Your task to perform on an android device: turn pop-ups on in chrome Image 0: 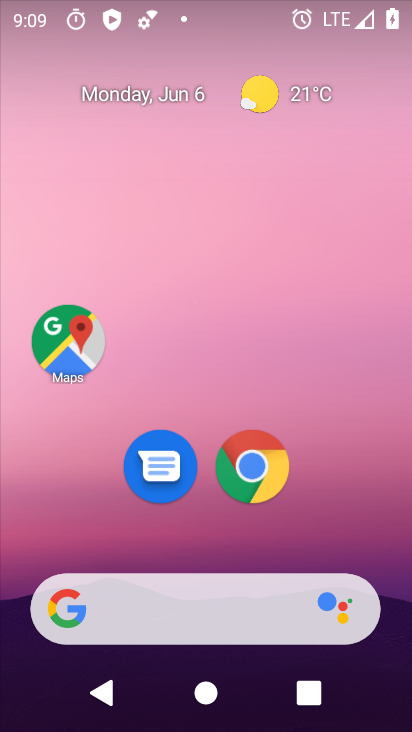
Step 0: click (277, 465)
Your task to perform on an android device: turn pop-ups on in chrome Image 1: 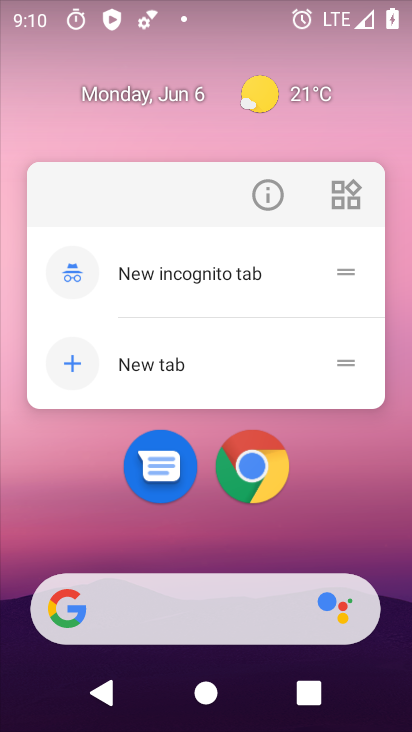
Step 1: click (267, 459)
Your task to perform on an android device: turn pop-ups on in chrome Image 2: 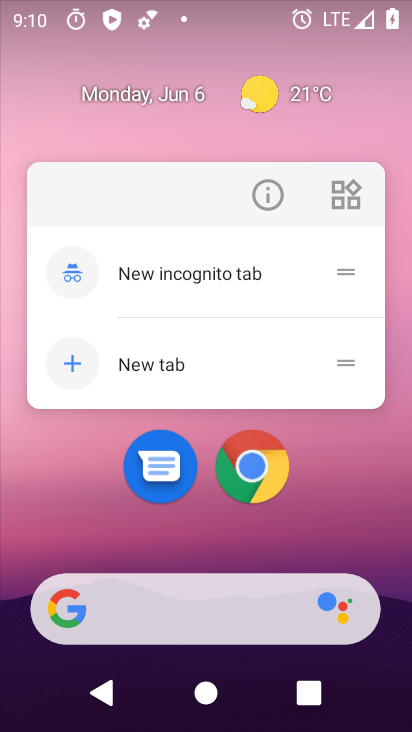
Step 2: click (255, 178)
Your task to perform on an android device: turn pop-ups on in chrome Image 3: 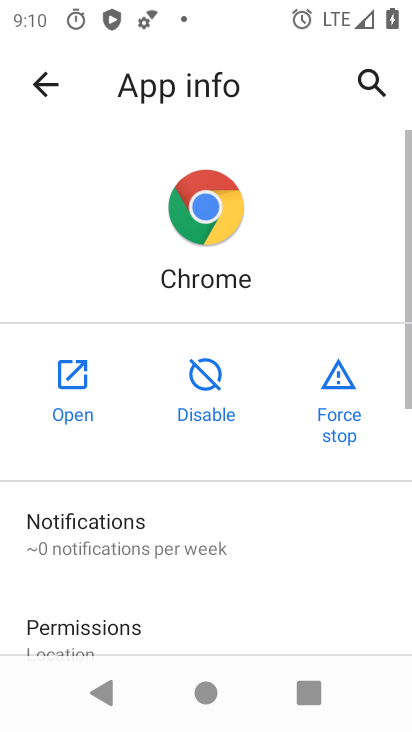
Step 3: click (64, 384)
Your task to perform on an android device: turn pop-ups on in chrome Image 4: 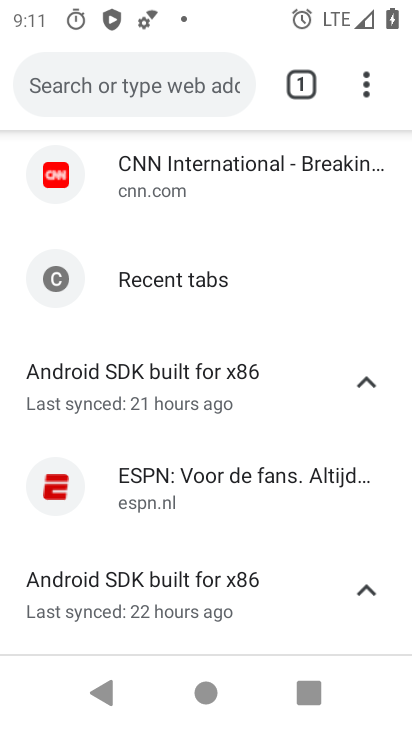
Step 4: drag from (378, 91) to (133, 514)
Your task to perform on an android device: turn pop-ups on in chrome Image 5: 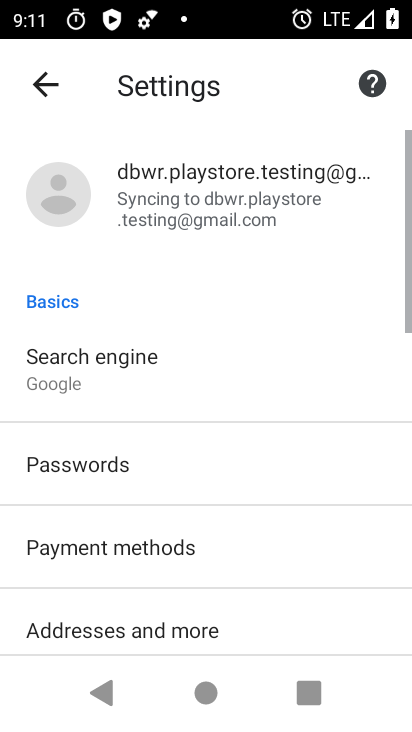
Step 5: drag from (162, 527) to (286, 103)
Your task to perform on an android device: turn pop-ups on in chrome Image 6: 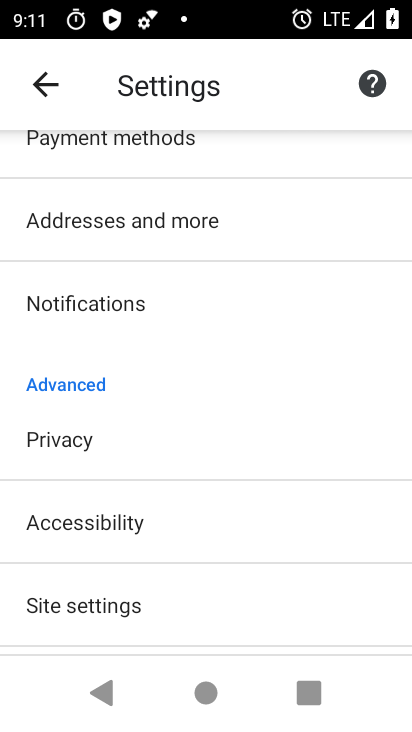
Step 6: click (174, 604)
Your task to perform on an android device: turn pop-ups on in chrome Image 7: 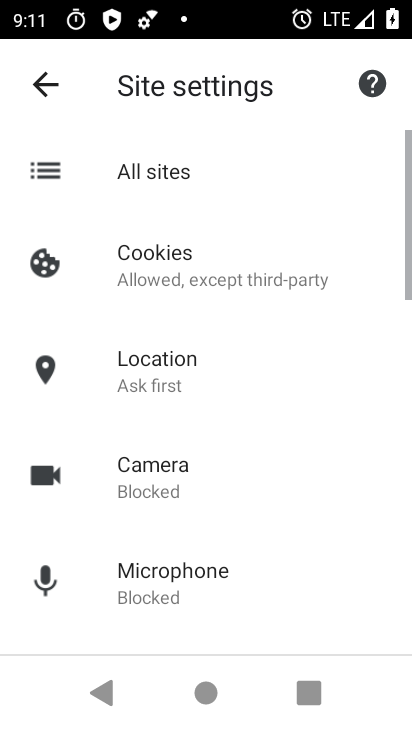
Step 7: drag from (168, 518) to (295, 154)
Your task to perform on an android device: turn pop-ups on in chrome Image 8: 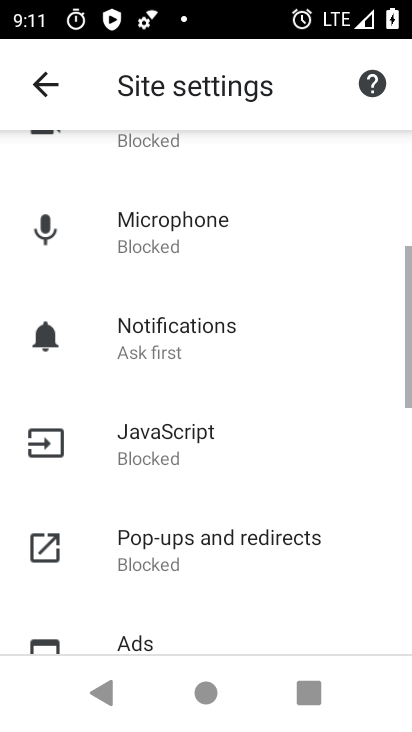
Step 8: click (182, 545)
Your task to perform on an android device: turn pop-ups on in chrome Image 9: 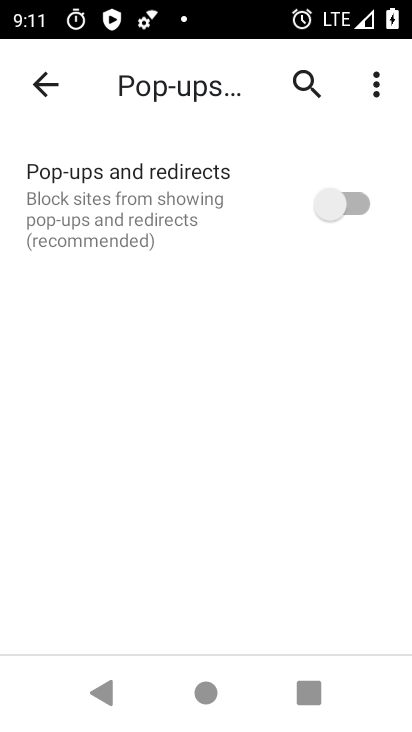
Step 9: drag from (196, 556) to (212, 370)
Your task to perform on an android device: turn pop-ups on in chrome Image 10: 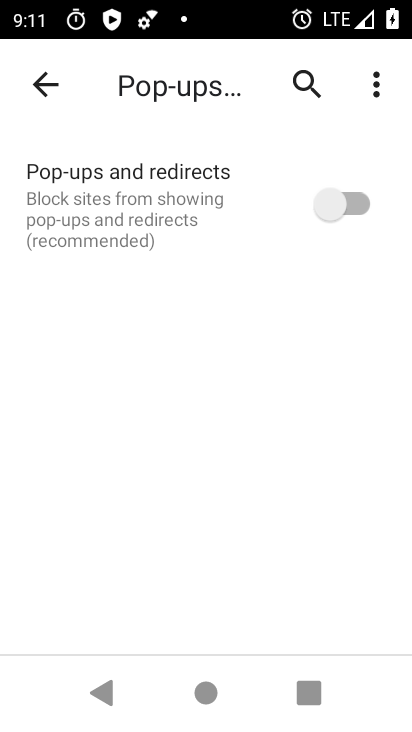
Step 10: drag from (167, 442) to (185, 264)
Your task to perform on an android device: turn pop-ups on in chrome Image 11: 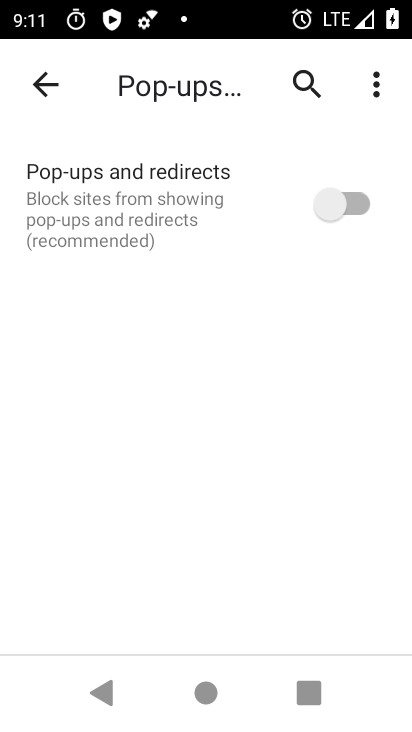
Step 11: click (342, 197)
Your task to perform on an android device: turn pop-ups on in chrome Image 12: 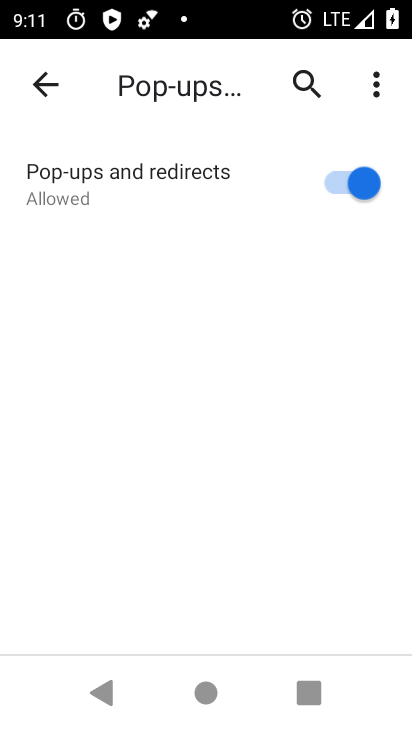
Step 12: task complete